Your task to perform on an android device: Go to Yahoo.com Image 0: 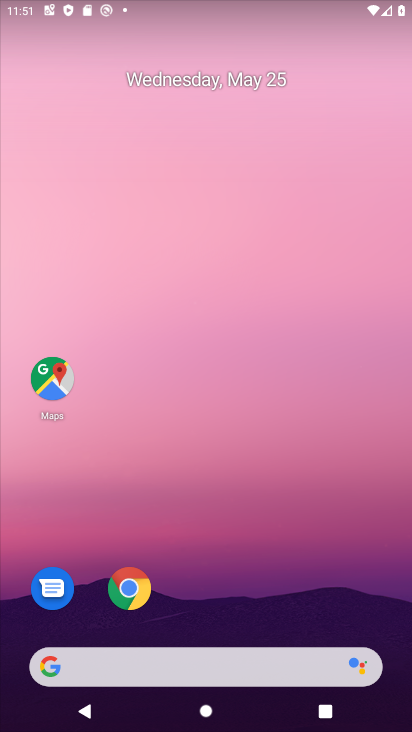
Step 0: drag from (268, 595) to (202, 7)
Your task to perform on an android device: Go to Yahoo.com Image 1: 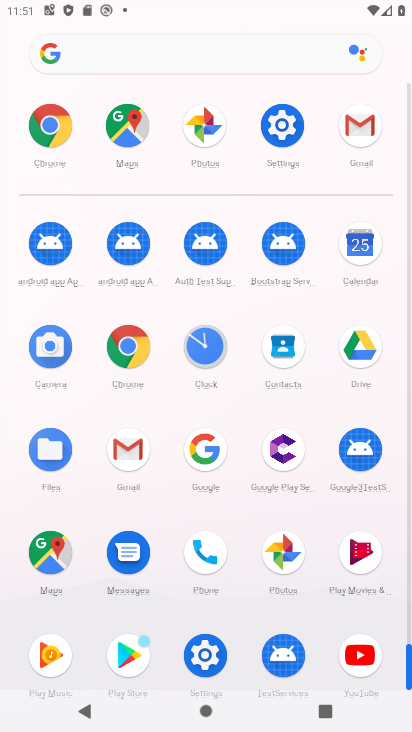
Step 1: drag from (6, 589) to (2, 254)
Your task to perform on an android device: Go to Yahoo.com Image 2: 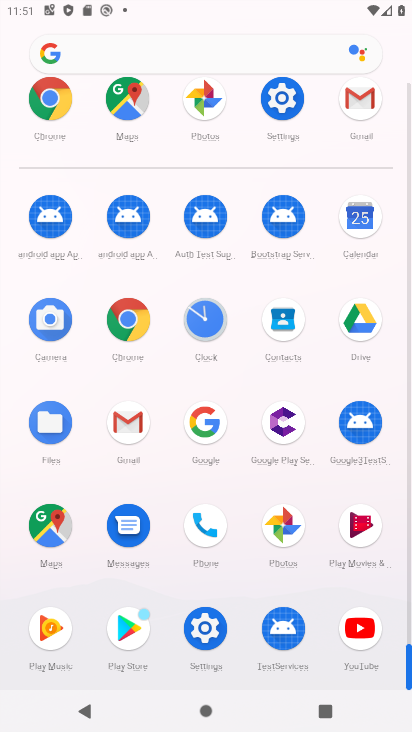
Step 2: click (127, 314)
Your task to perform on an android device: Go to Yahoo.com Image 3: 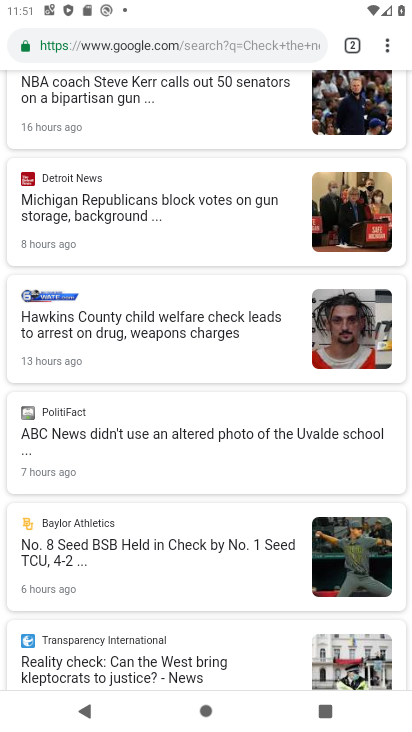
Step 3: drag from (169, 118) to (167, 324)
Your task to perform on an android device: Go to Yahoo.com Image 4: 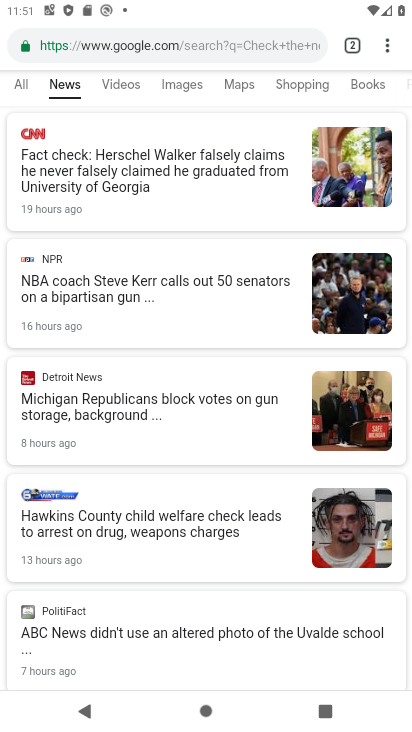
Step 4: click (165, 43)
Your task to perform on an android device: Go to Yahoo.com Image 5: 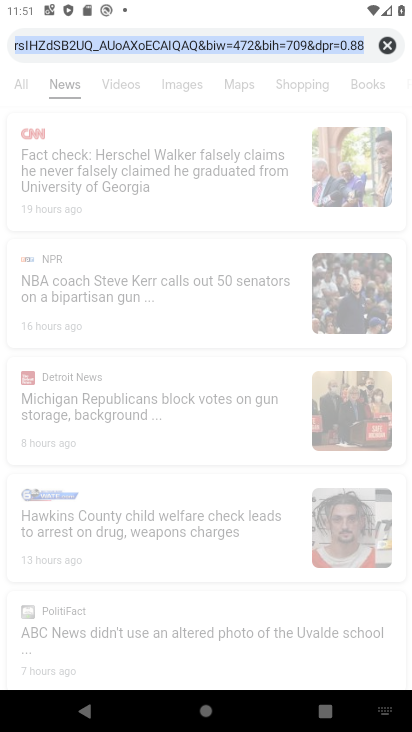
Step 5: click (391, 44)
Your task to perform on an android device: Go to Yahoo.com Image 6: 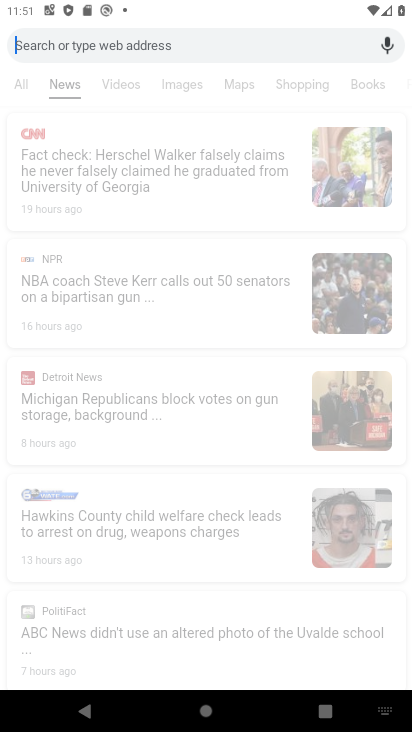
Step 6: type "Yahoo.com"
Your task to perform on an android device: Go to Yahoo.com Image 7: 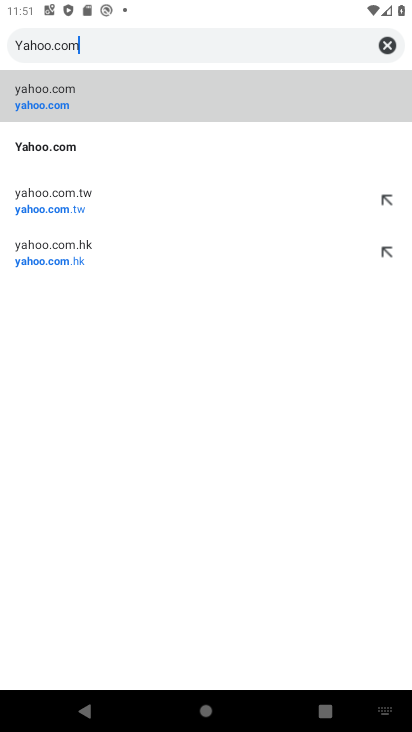
Step 7: click (50, 94)
Your task to perform on an android device: Go to Yahoo.com Image 8: 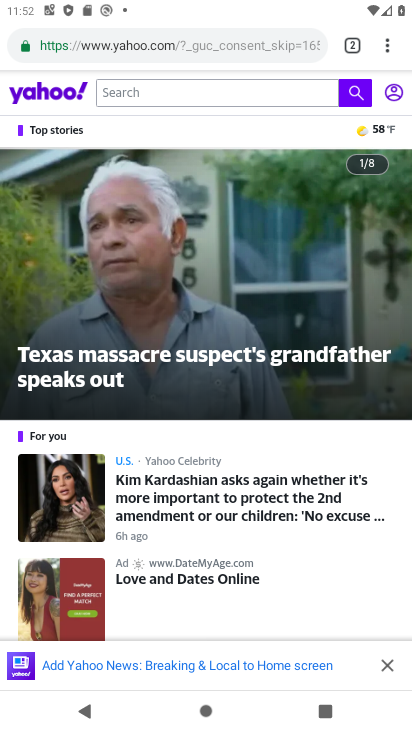
Step 8: task complete